Your task to perform on an android device: Open calendar and show me the fourth week of next month Image 0: 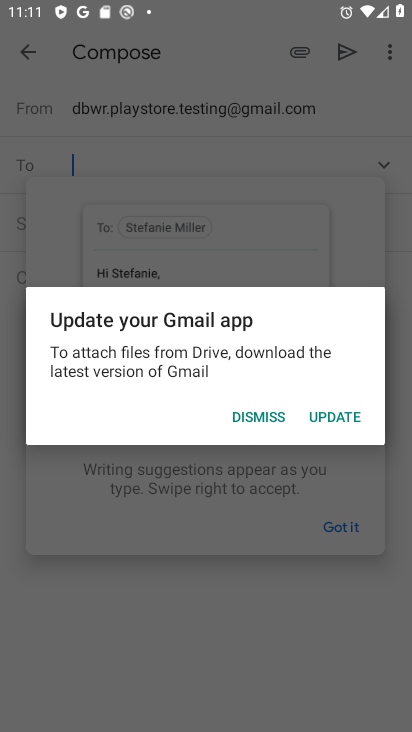
Step 0: press home button
Your task to perform on an android device: Open calendar and show me the fourth week of next month Image 1: 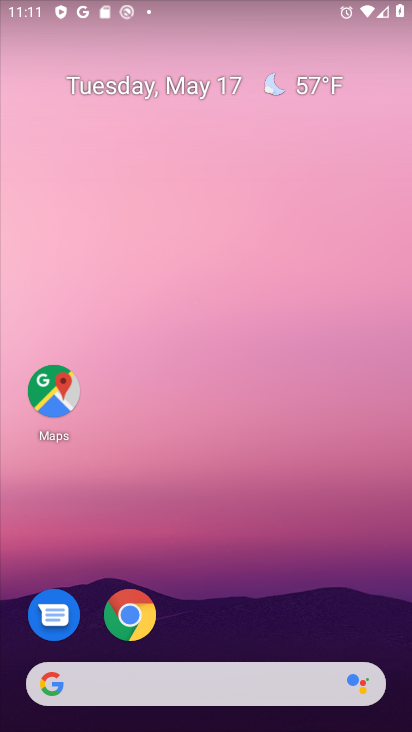
Step 1: drag from (285, 608) to (244, 149)
Your task to perform on an android device: Open calendar and show me the fourth week of next month Image 2: 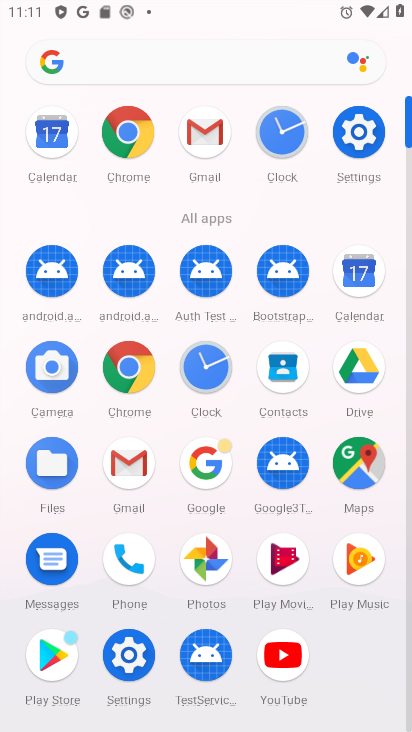
Step 2: click (349, 272)
Your task to perform on an android device: Open calendar and show me the fourth week of next month Image 3: 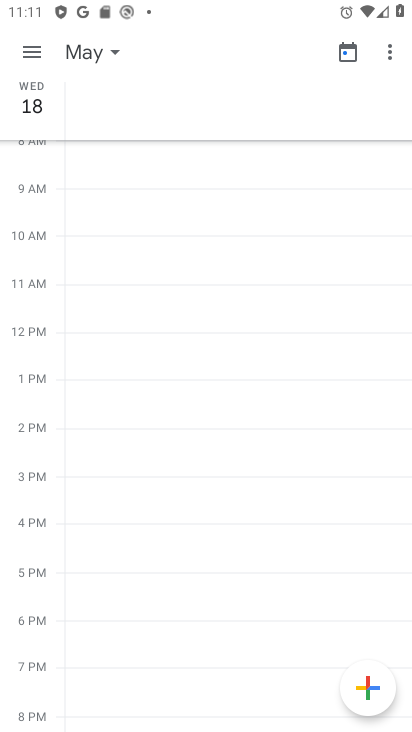
Step 3: click (82, 59)
Your task to perform on an android device: Open calendar and show me the fourth week of next month Image 4: 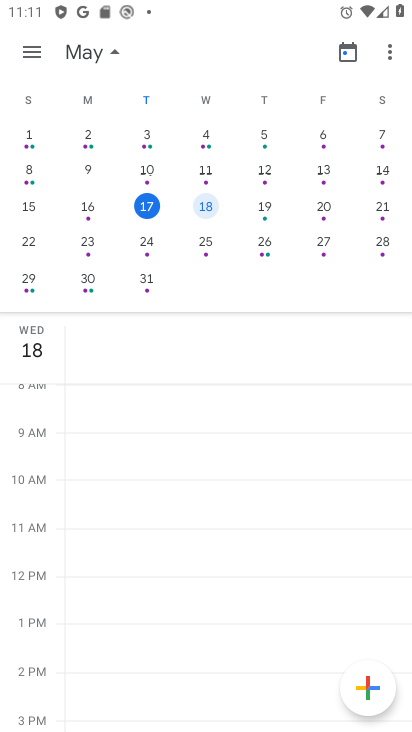
Step 4: drag from (349, 184) to (51, 179)
Your task to perform on an android device: Open calendar and show me the fourth week of next month Image 5: 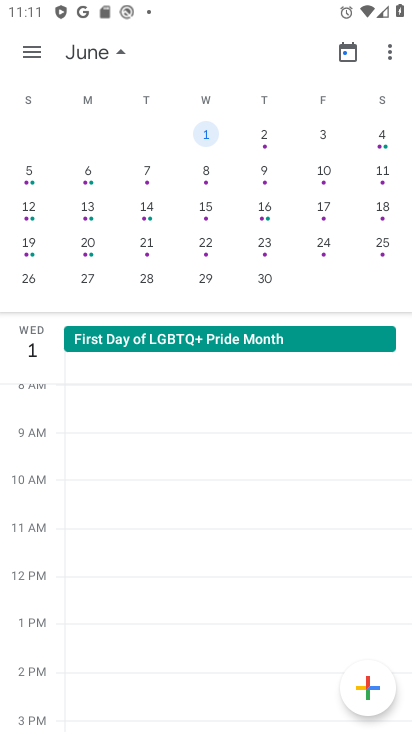
Step 5: click (30, 271)
Your task to perform on an android device: Open calendar and show me the fourth week of next month Image 6: 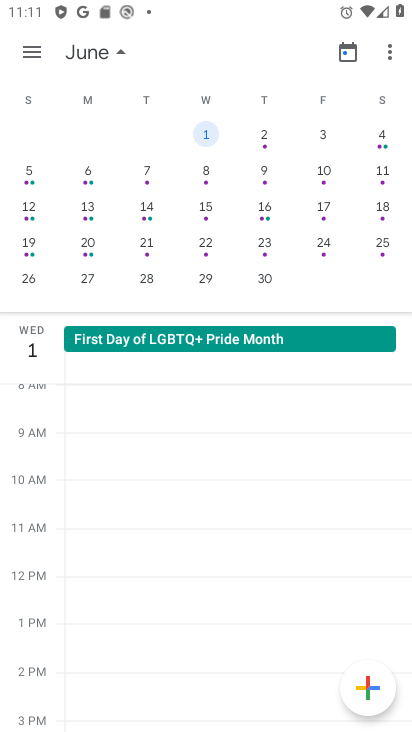
Step 6: click (38, 52)
Your task to perform on an android device: Open calendar and show me the fourth week of next month Image 7: 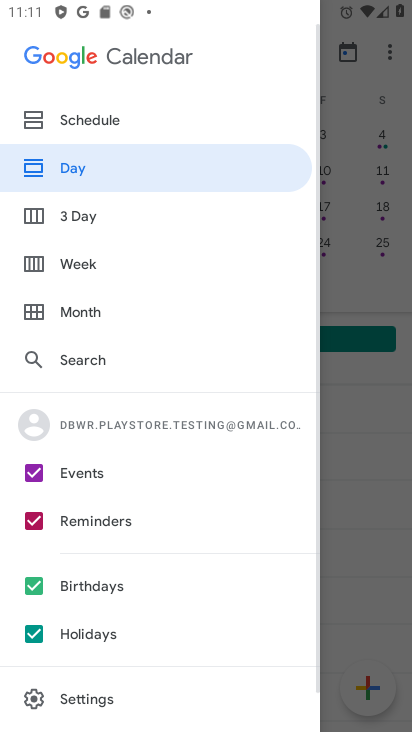
Step 7: click (95, 275)
Your task to perform on an android device: Open calendar and show me the fourth week of next month Image 8: 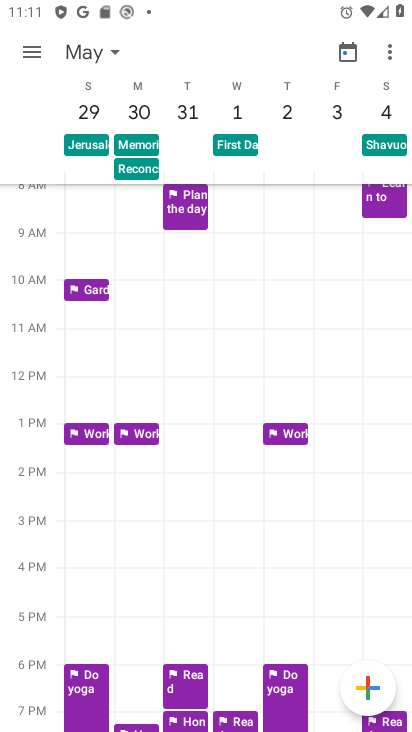
Step 8: task complete